Your task to perform on an android device: Is it going to rain this weekend? Image 0: 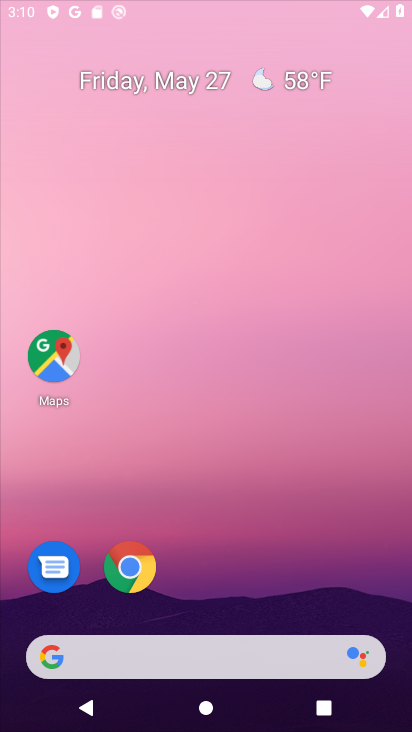
Step 0: press home button
Your task to perform on an android device: Is it going to rain this weekend? Image 1: 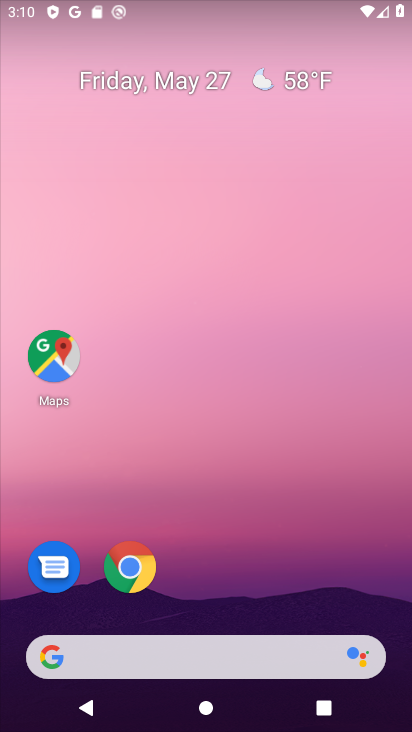
Step 1: drag from (212, 615) to (275, 32)
Your task to perform on an android device: Is it going to rain this weekend? Image 2: 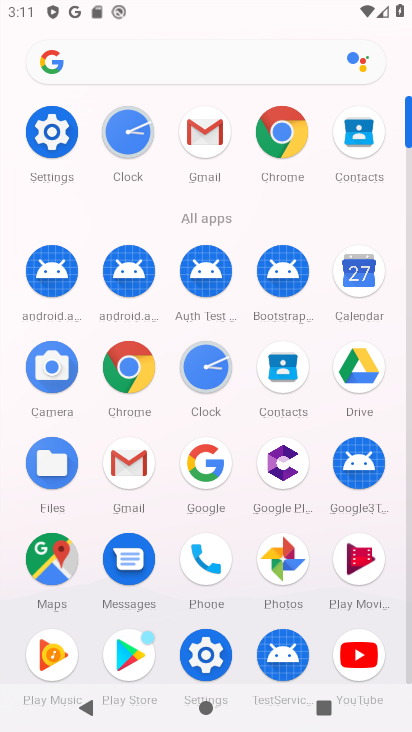
Step 2: press home button
Your task to perform on an android device: Is it going to rain this weekend? Image 3: 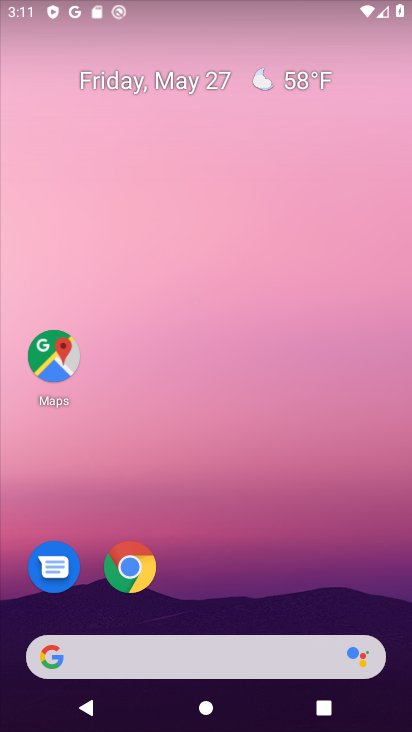
Step 3: click (296, 79)
Your task to perform on an android device: Is it going to rain this weekend? Image 4: 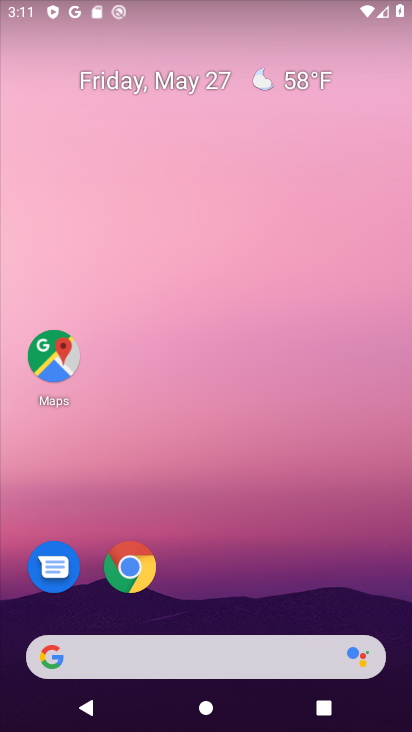
Step 4: drag from (6, 248) to (387, 256)
Your task to perform on an android device: Is it going to rain this weekend? Image 5: 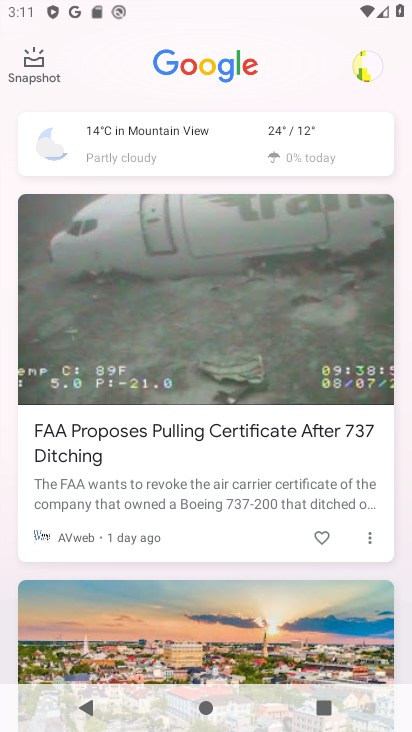
Step 5: click (279, 134)
Your task to perform on an android device: Is it going to rain this weekend? Image 6: 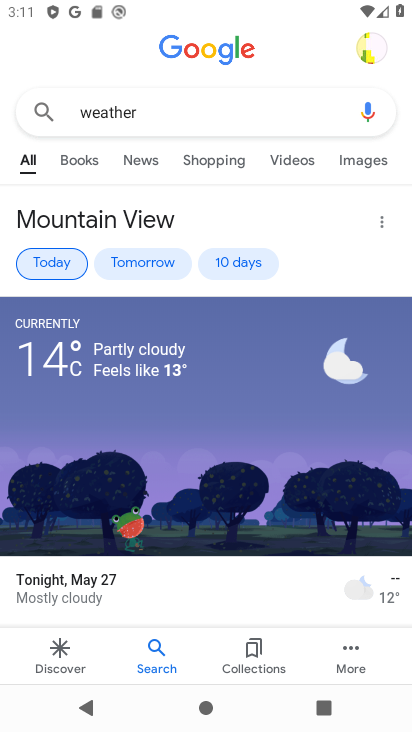
Step 6: click (237, 266)
Your task to perform on an android device: Is it going to rain this weekend? Image 7: 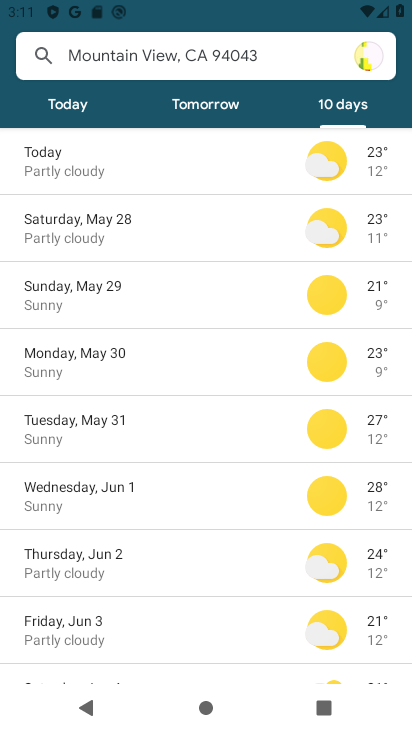
Step 7: task complete